Your task to perform on an android device: Open the web browser Image 0: 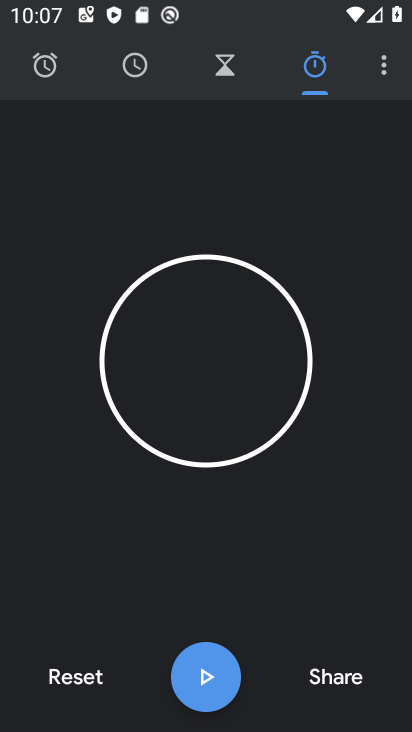
Step 0: press home button
Your task to perform on an android device: Open the web browser Image 1: 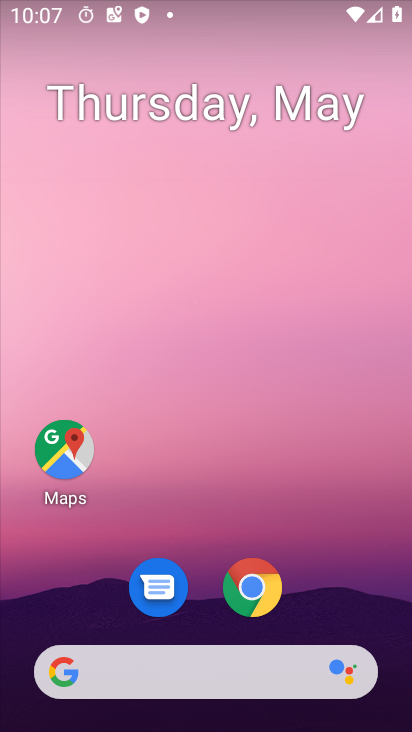
Step 1: click (248, 611)
Your task to perform on an android device: Open the web browser Image 2: 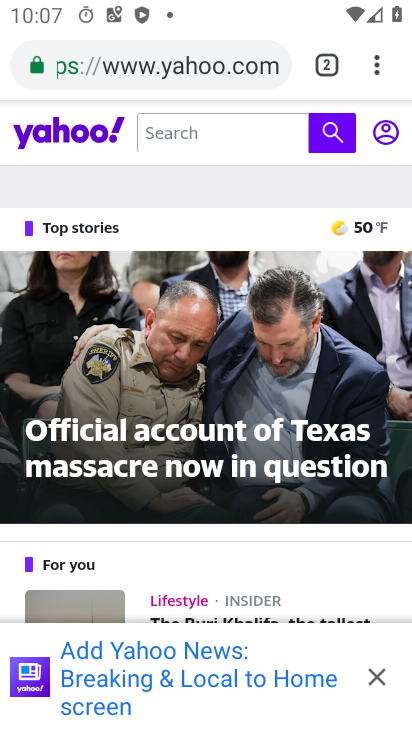
Step 2: task complete